Your task to perform on an android device: Show me recent news Image 0: 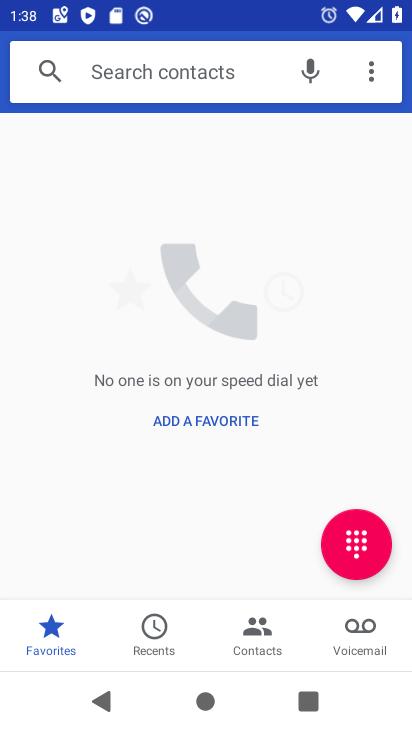
Step 0: press home button
Your task to perform on an android device: Show me recent news Image 1: 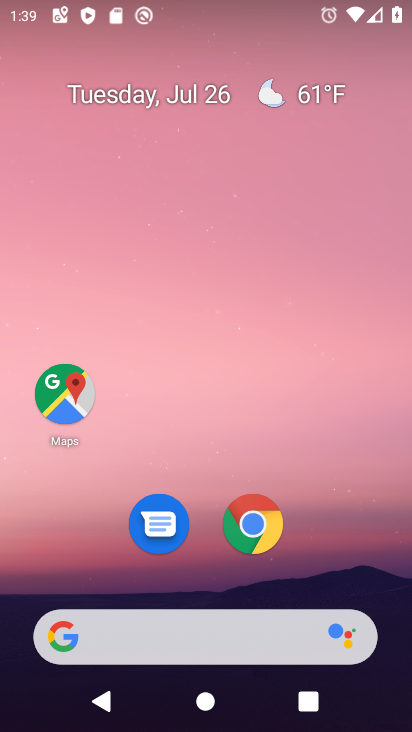
Step 1: click (146, 633)
Your task to perform on an android device: Show me recent news Image 2: 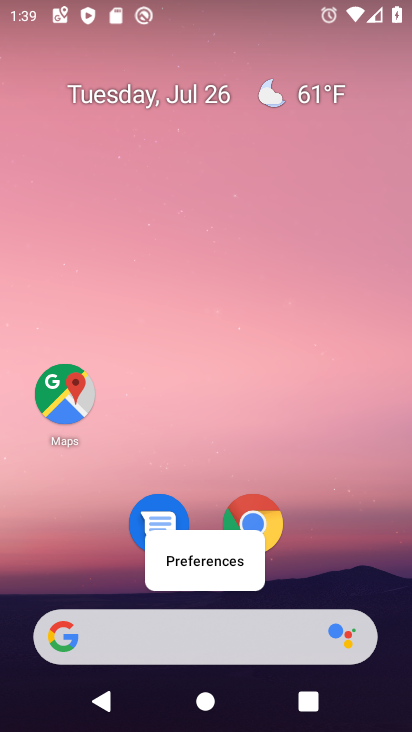
Step 2: click (135, 641)
Your task to perform on an android device: Show me recent news Image 3: 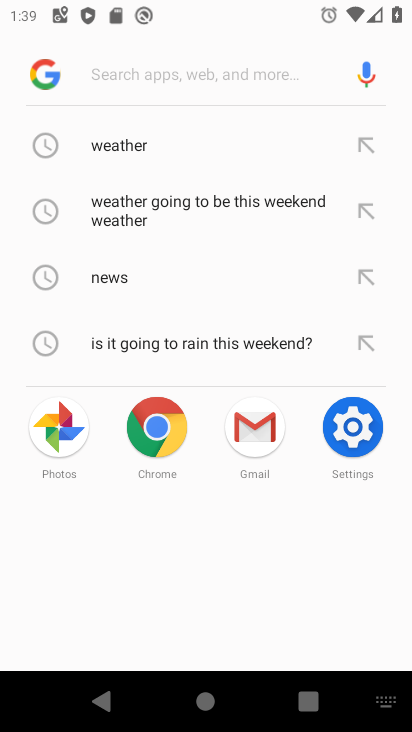
Step 3: click (104, 272)
Your task to perform on an android device: Show me recent news Image 4: 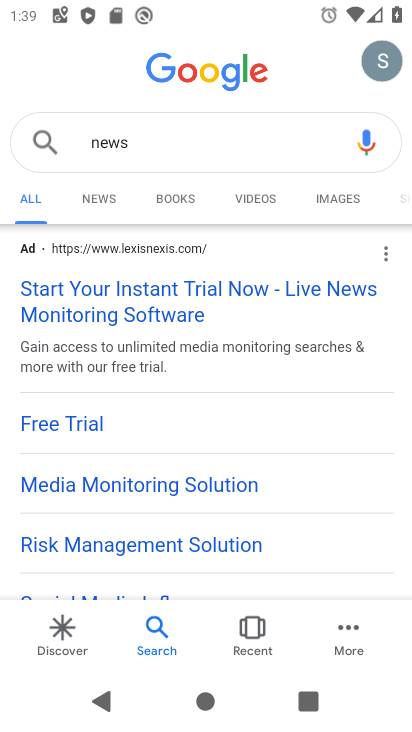
Step 4: click (96, 202)
Your task to perform on an android device: Show me recent news Image 5: 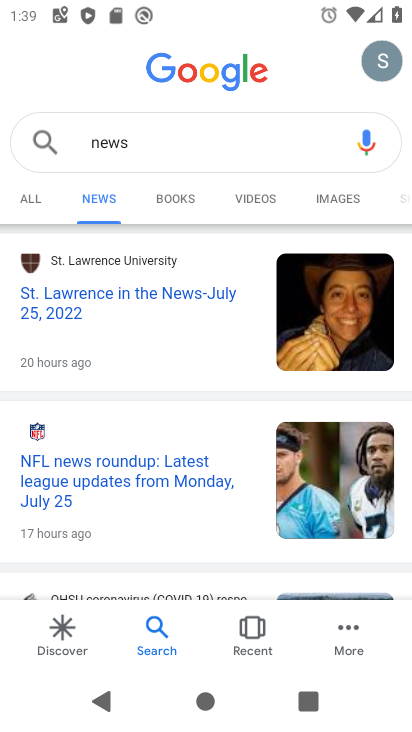
Step 5: task complete